Your task to perform on an android device: Open privacy settings Image 0: 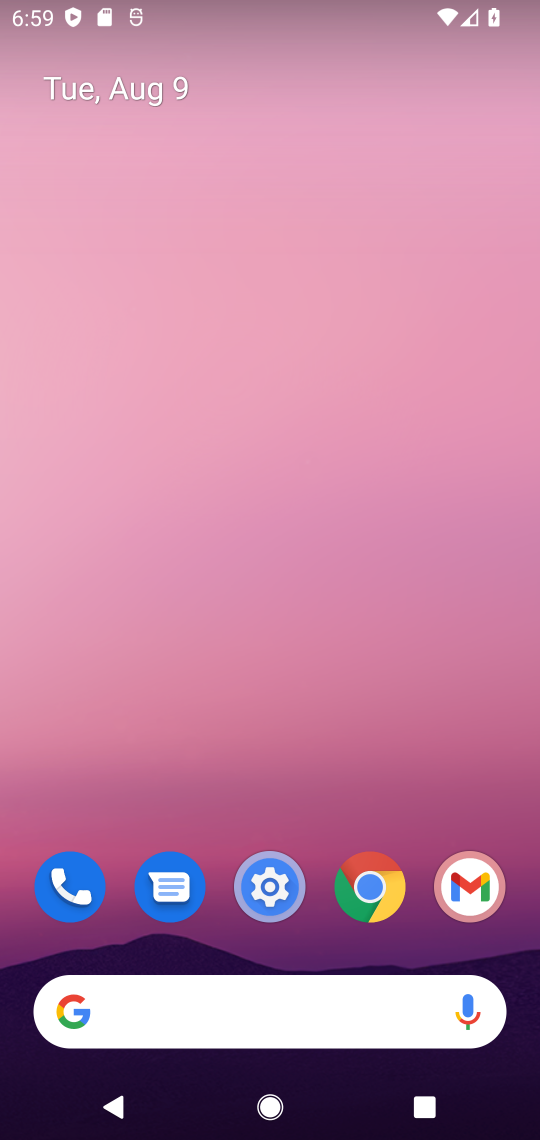
Step 0: click (258, 878)
Your task to perform on an android device: Open privacy settings Image 1: 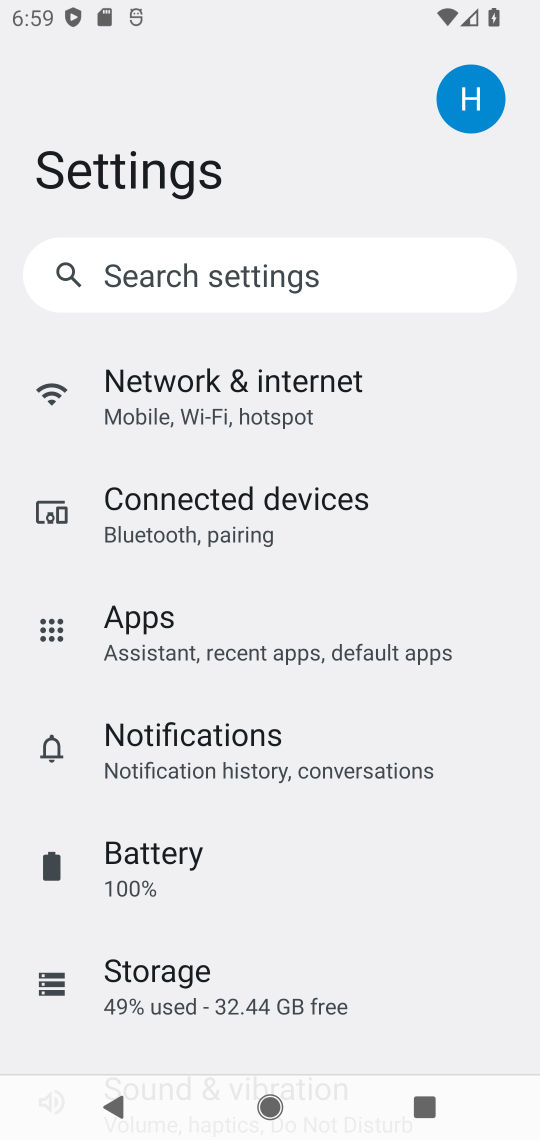
Step 1: drag from (287, 892) to (377, 65)
Your task to perform on an android device: Open privacy settings Image 2: 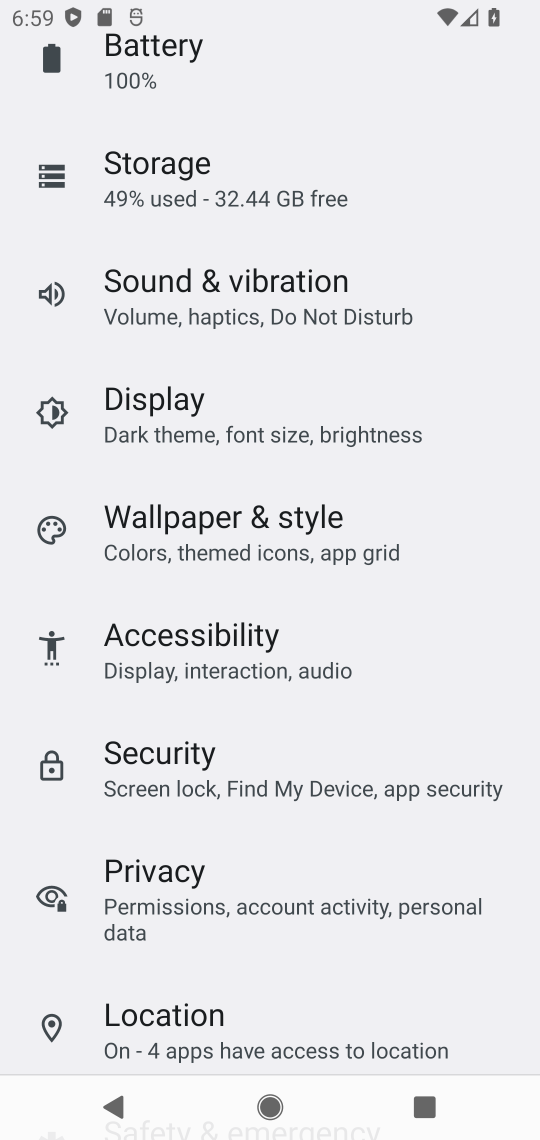
Step 2: click (242, 897)
Your task to perform on an android device: Open privacy settings Image 3: 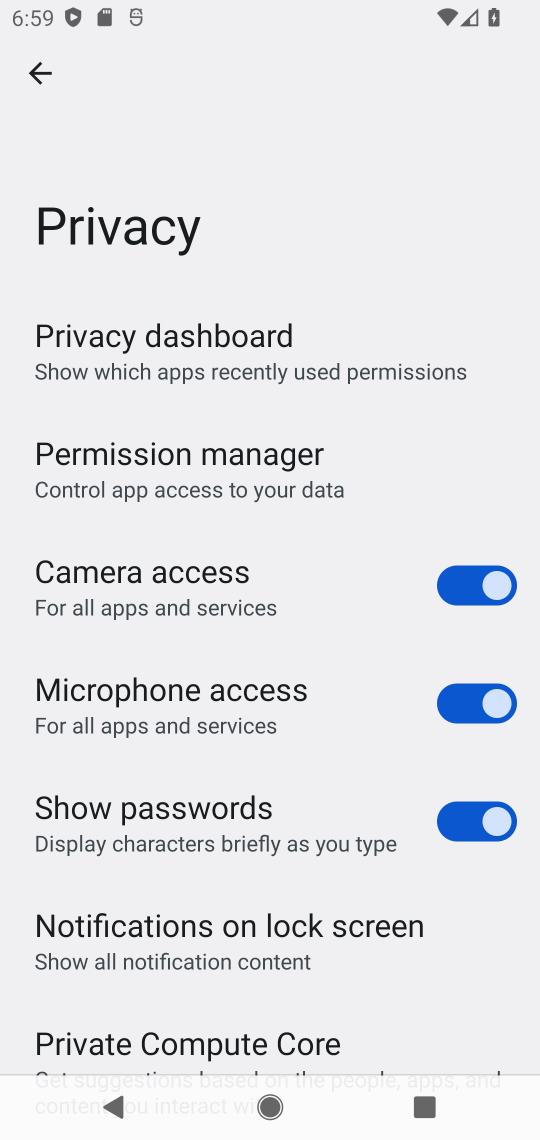
Step 3: task complete